Your task to perform on an android device: toggle show notifications on the lock screen Image 0: 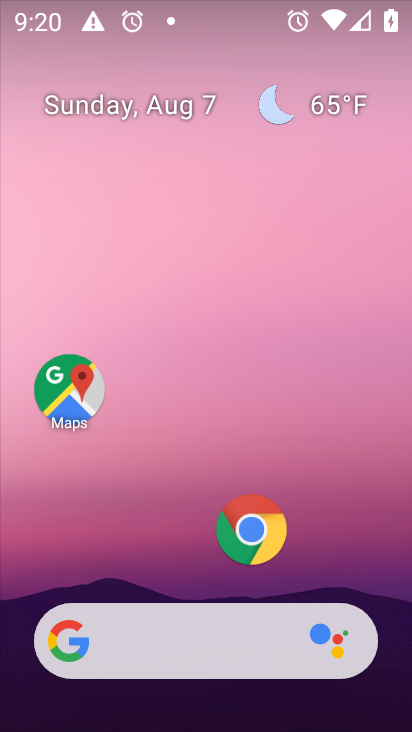
Step 0: drag from (146, 588) to (178, 233)
Your task to perform on an android device: toggle show notifications on the lock screen Image 1: 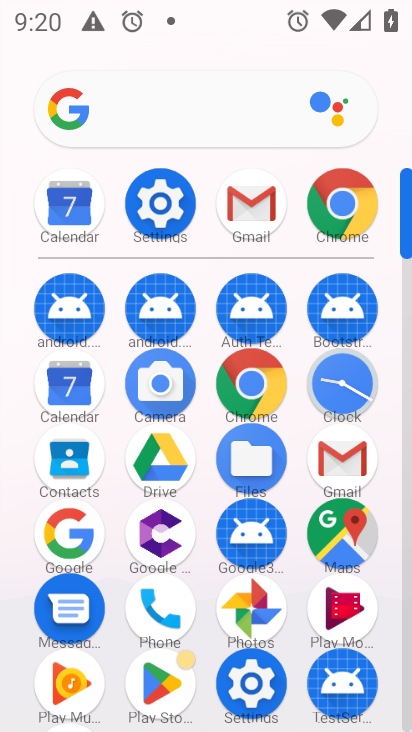
Step 1: click (158, 208)
Your task to perform on an android device: toggle show notifications on the lock screen Image 2: 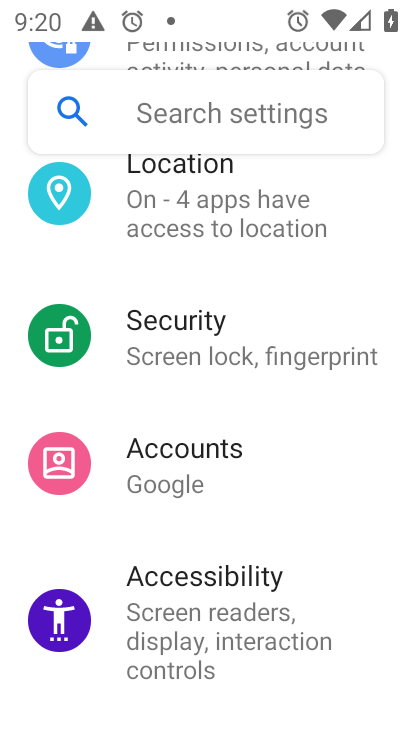
Step 2: drag from (241, 271) to (204, 618)
Your task to perform on an android device: toggle show notifications on the lock screen Image 3: 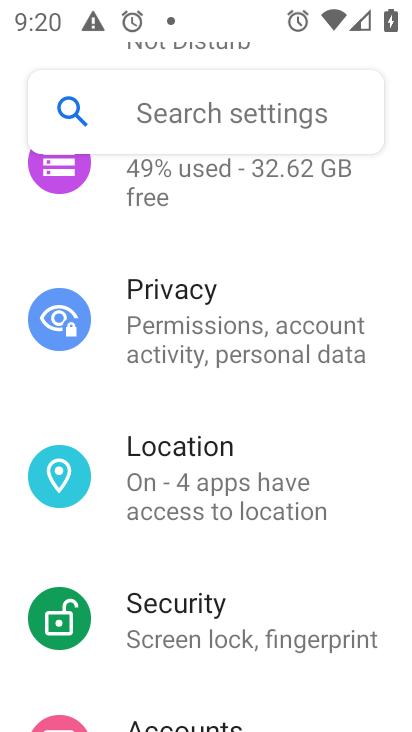
Step 3: drag from (245, 251) to (220, 689)
Your task to perform on an android device: toggle show notifications on the lock screen Image 4: 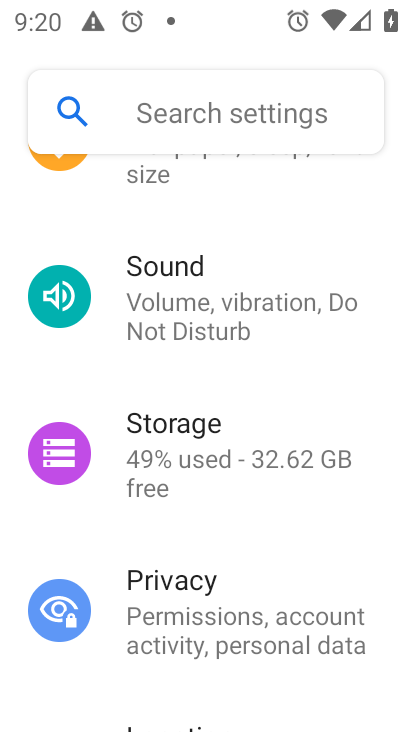
Step 4: drag from (256, 237) to (239, 408)
Your task to perform on an android device: toggle show notifications on the lock screen Image 5: 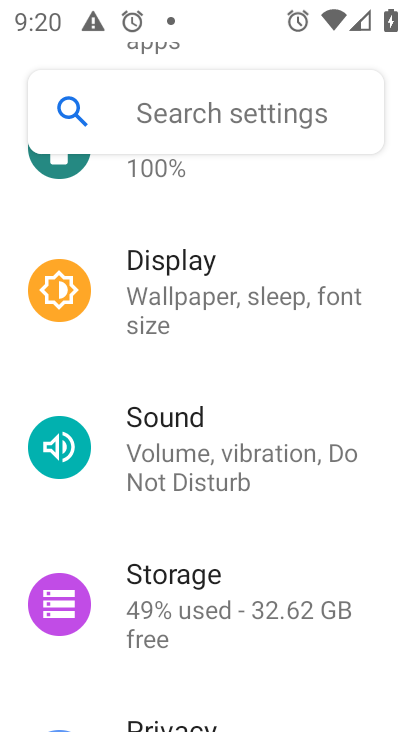
Step 5: drag from (240, 266) to (222, 456)
Your task to perform on an android device: toggle show notifications on the lock screen Image 6: 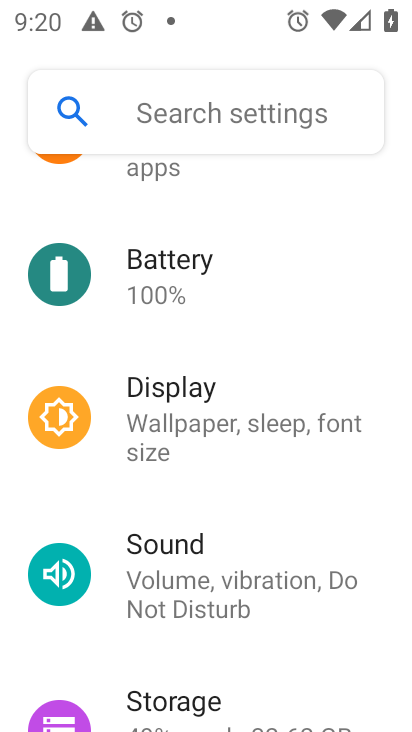
Step 6: drag from (239, 279) to (238, 443)
Your task to perform on an android device: toggle show notifications on the lock screen Image 7: 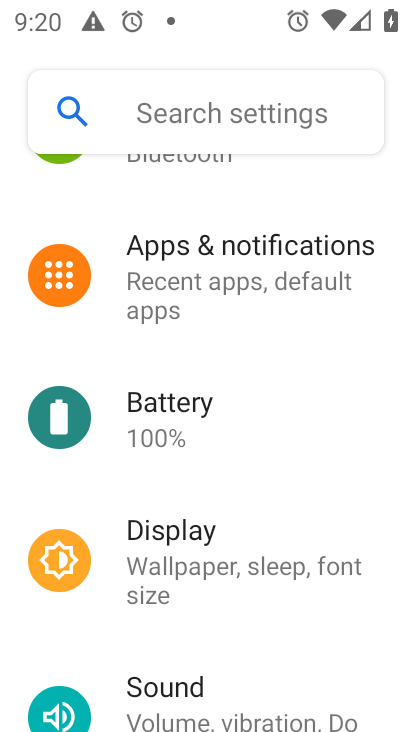
Step 7: drag from (224, 282) to (223, 331)
Your task to perform on an android device: toggle show notifications on the lock screen Image 8: 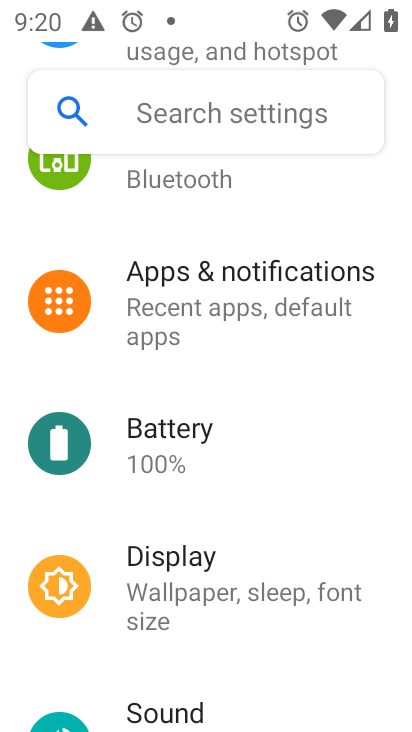
Step 8: click (201, 317)
Your task to perform on an android device: toggle show notifications on the lock screen Image 9: 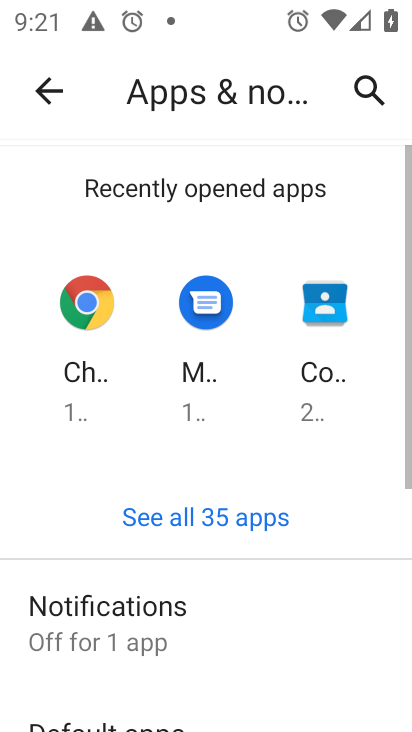
Step 9: drag from (140, 589) to (159, 343)
Your task to perform on an android device: toggle show notifications on the lock screen Image 10: 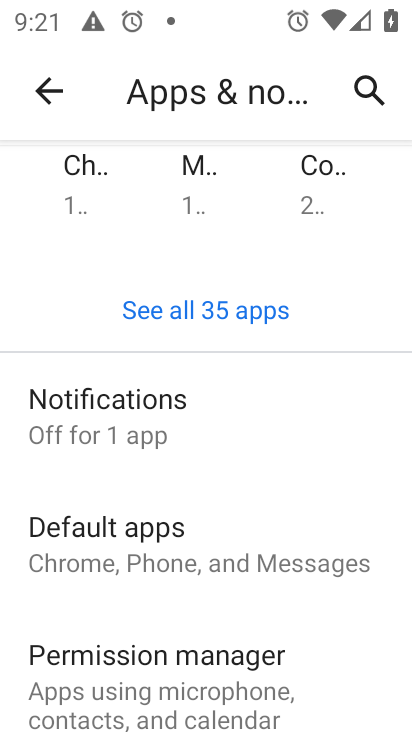
Step 10: click (106, 421)
Your task to perform on an android device: toggle show notifications on the lock screen Image 11: 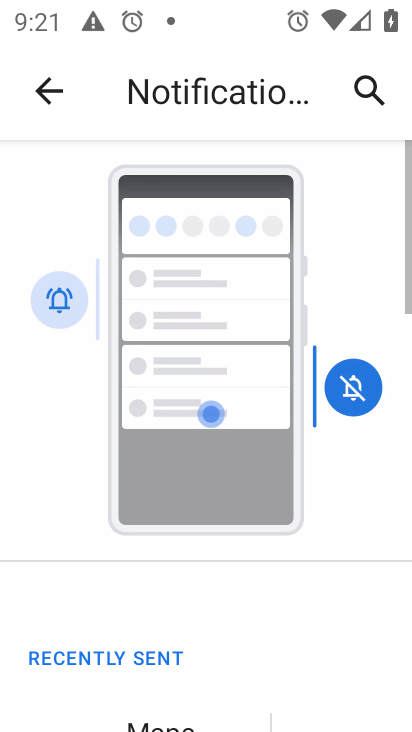
Step 11: drag from (175, 669) to (194, 416)
Your task to perform on an android device: toggle show notifications on the lock screen Image 12: 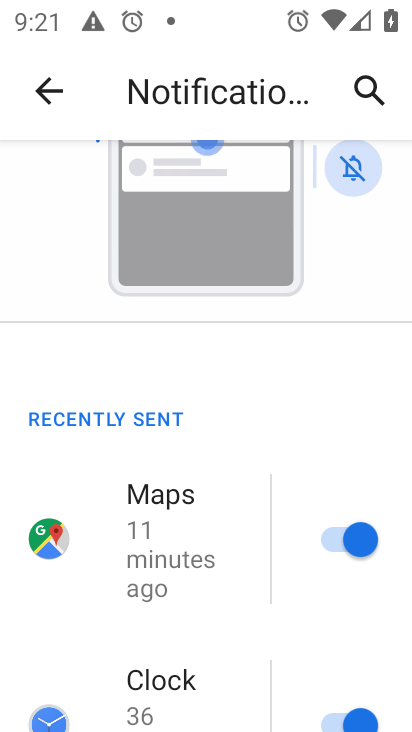
Step 12: drag from (179, 600) to (182, 353)
Your task to perform on an android device: toggle show notifications on the lock screen Image 13: 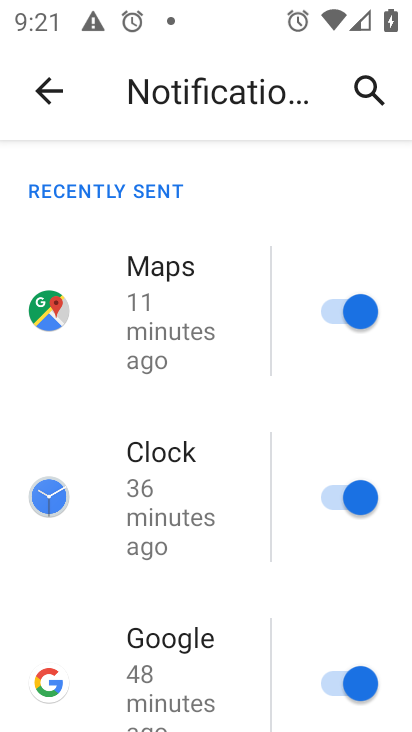
Step 13: drag from (176, 577) to (208, 54)
Your task to perform on an android device: toggle show notifications on the lock screen Image 14: 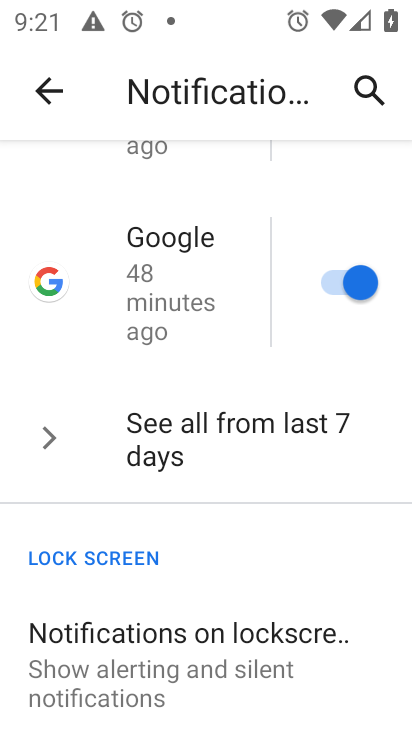
Step 14: click (134, 630)
Your task to perform on an android device: toggle show notifications on the lock screen Image 15: 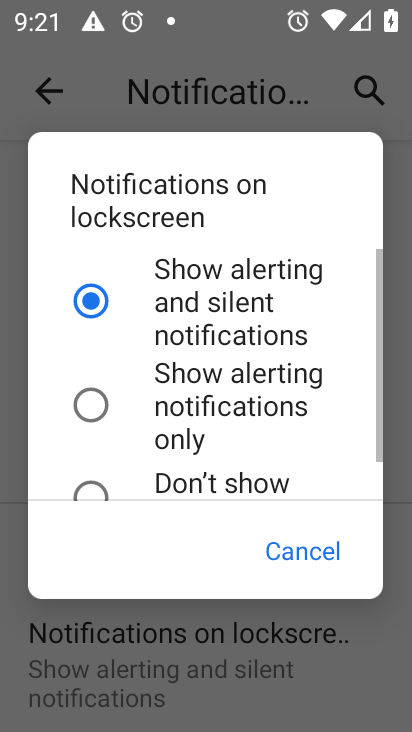
Step 15: drag from (140, 446) to (175, 255)
Your task to perform on an android device: toggle show notifications on the lock screen Image 16: 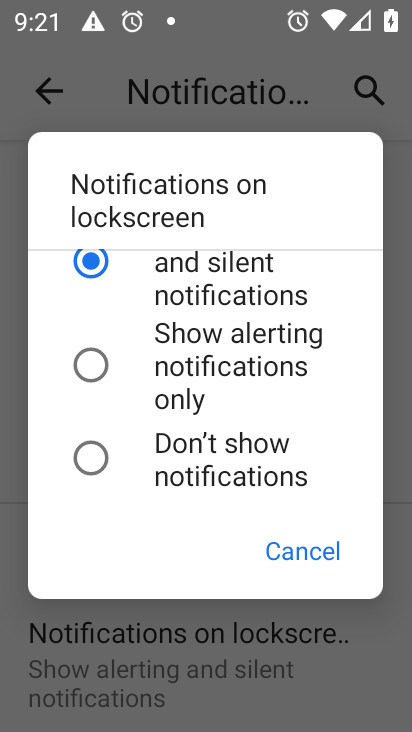
Step 16: click (99, 465)
Your task to perform on an android device: toggle show notifications on the lock screen Image 17: 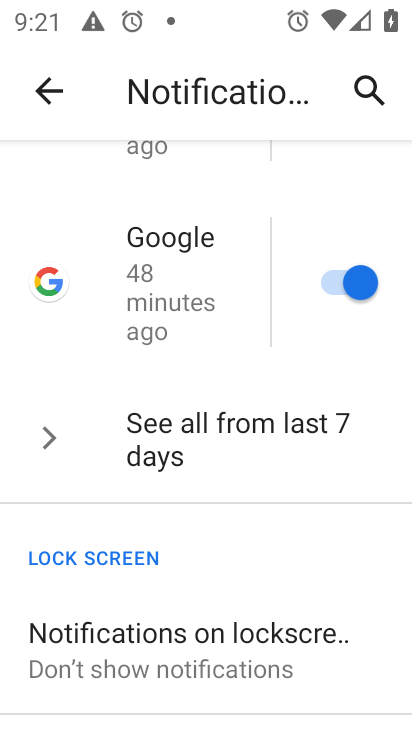
Step 17: task complete